Your task to perform on an android device: find photos in the google photos app Image 0: 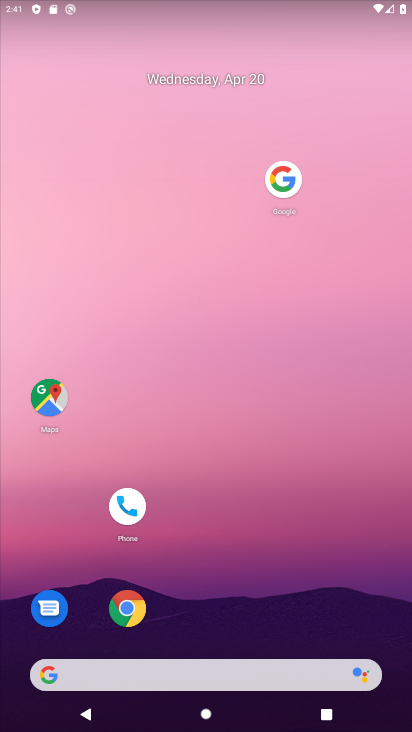
Step 0: drag from (285, 596) to (247, 211)
Your task to perform on an android device: find photos in the google photos app Image 1: 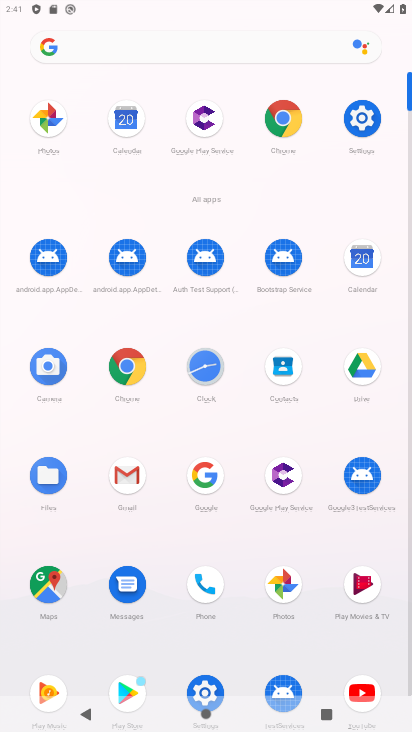
Step 1: click (276, 582)
Your task to perform on an android device: find photos in the google photos app Image 2: 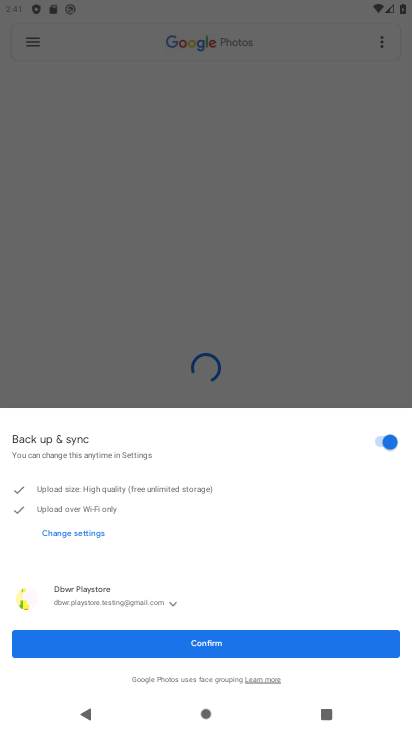
Step 2: click (244, 634)
Your task to perform on an android device: find photos in the google photos app Image 3: 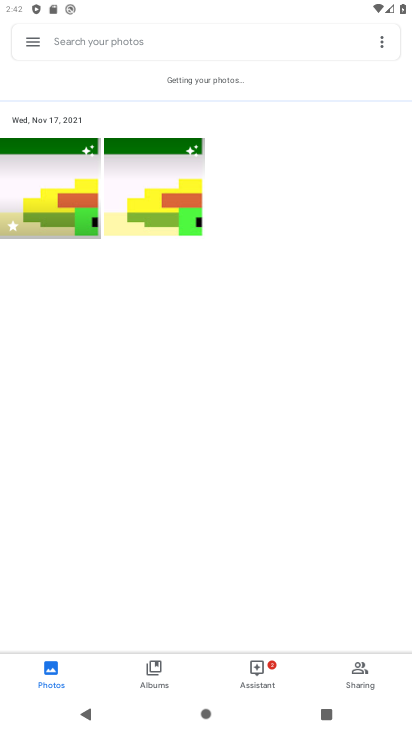
Step 3: click (56, 191)
Your task to perform on an android device: find photos in the google photos app Image 4: 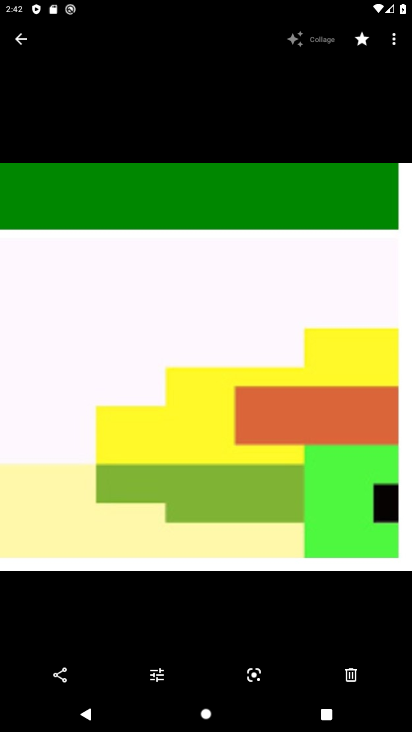
Step 4: task complete